Your task to perform on an android device: check battery use Image 0: 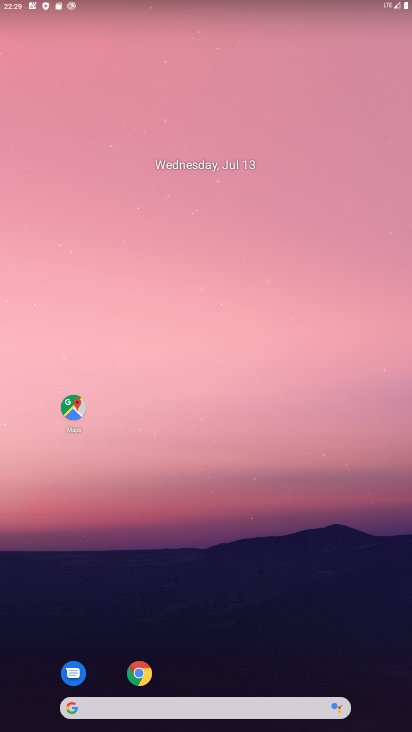
Step 0: drag from (176, 659) to (208, 116)
Your task to perform on an android device: check battery use Image 1: 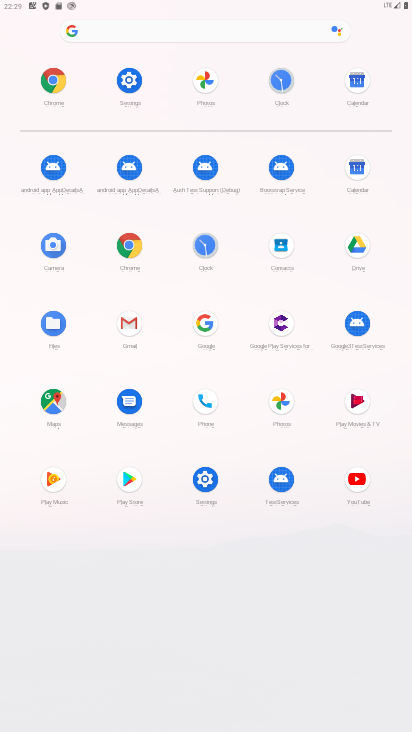
Step 1: click (131, 87)
Your task to perform on an android device: check battery use Image 2: 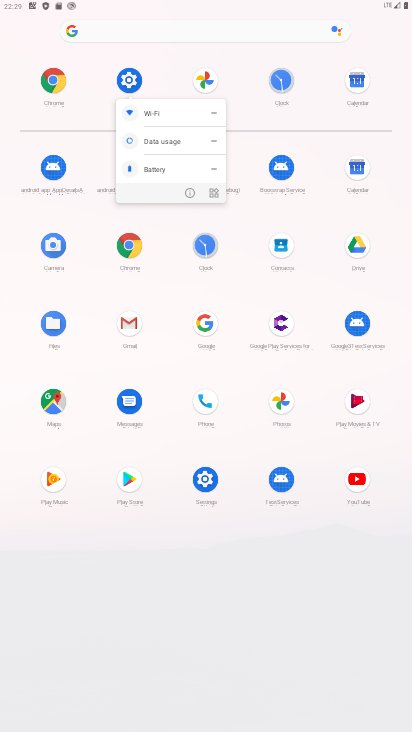
Step 2: click (192, 194)
Your task to perform on an android device: check battery use Image 3: 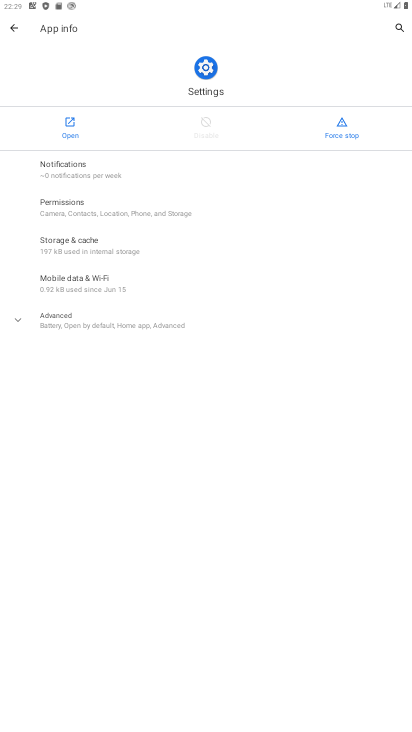
Step 3: click (47, 133)
Your task to perform on an android device: check battery use Image 4: 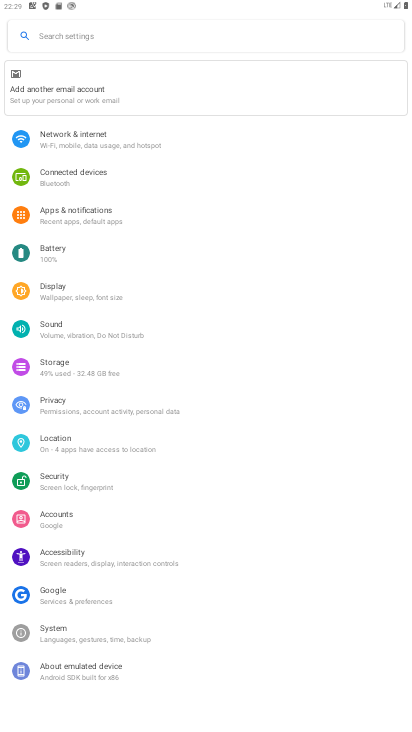
Step 4: click (73, 256)
Your task to perform on an android device: check battery use Image 5: 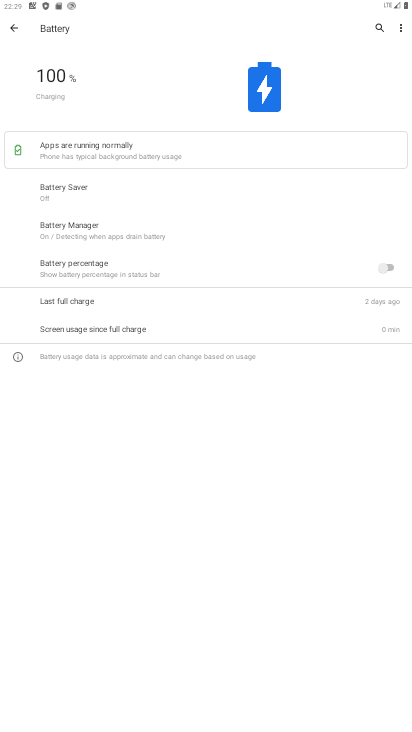
Step 5: click (398, 27)
Your task to perform on an android device: check battery use Image 6: 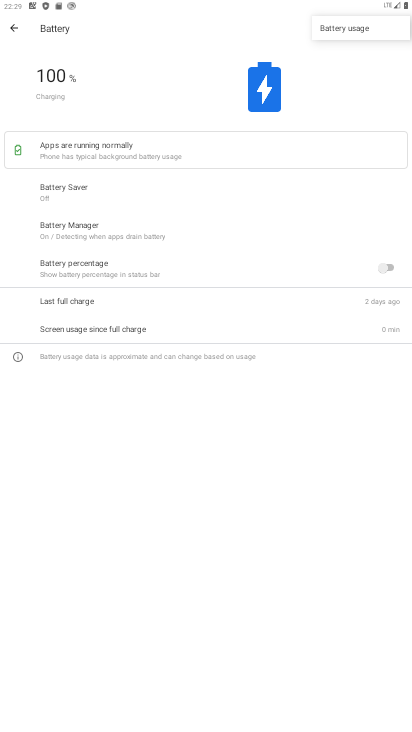
Step 6: click (352, 20)
Your task to perform on an android device: check battery use Image 7: 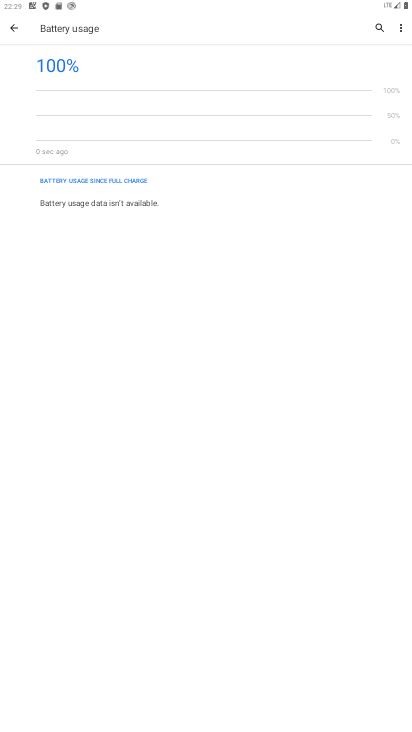
Step 7: task complete